Your task to perform on an android device: move a message to another label in the gmail app Image 0: 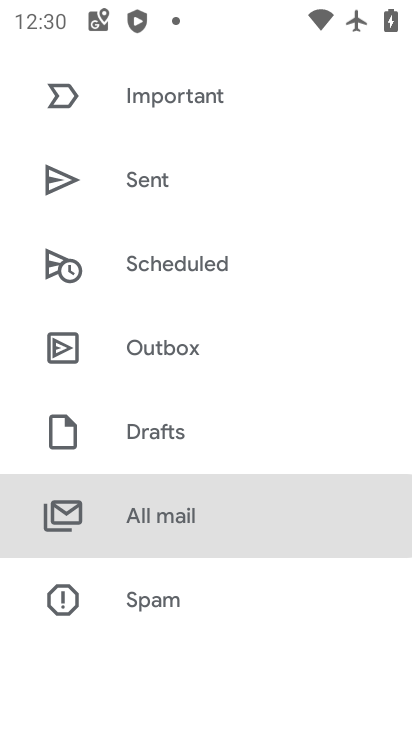
Step 0: click (220, 550)
Your task to perform on an android device: move a message to another label in the gmail app Image 1: 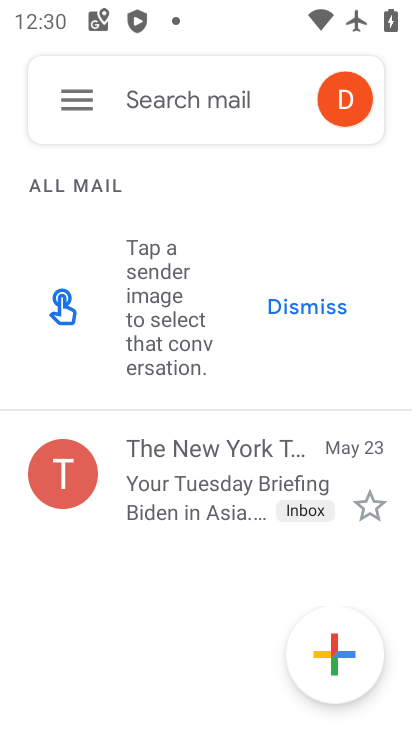
Step 1: click (226, 504)
Your task to perform on an android device: move a message to another label in the gmail app Image 2: 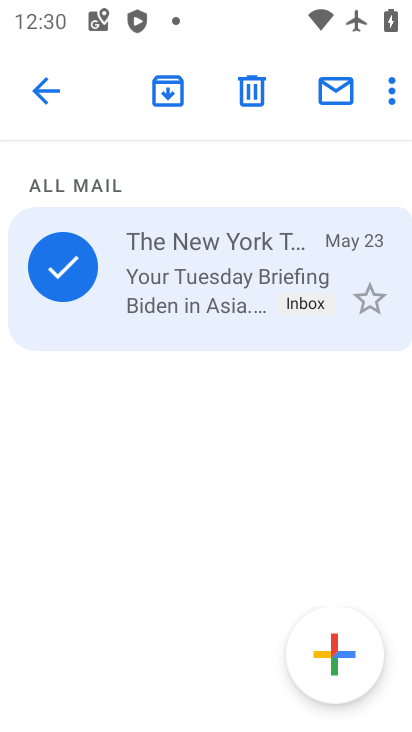
Step 2: click (384, 102)
Your task to perform on an android device: move a message to another label in the gmail app Image 3: 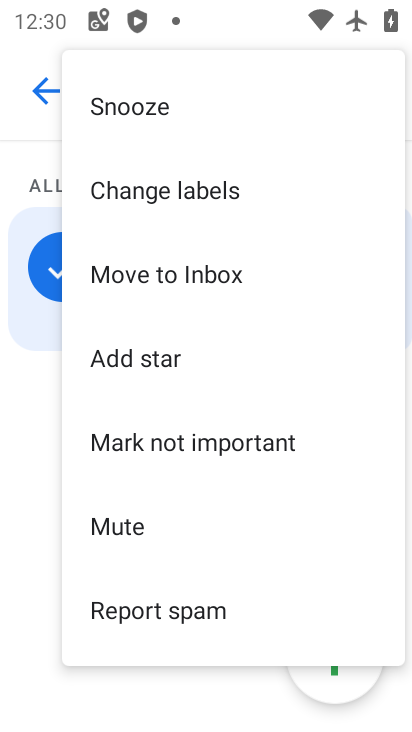
Step 3: click (235, 278)
Your task to perform on an android device: move a message to another label in the gmail app Image 4: 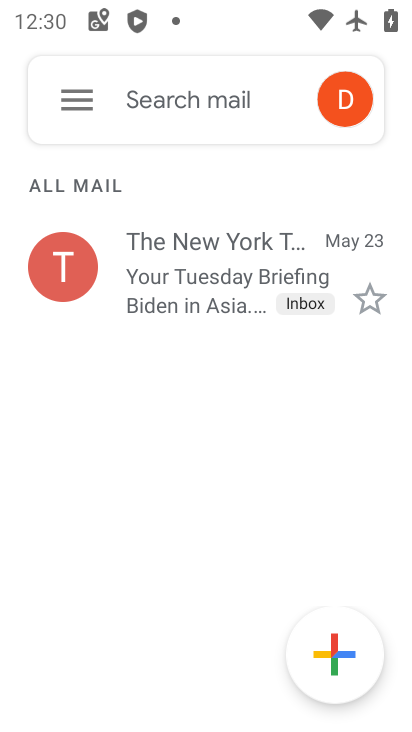
Step 4: task complete